Your task to perform on an android device: refresh tabs in the chrome app Image 0: 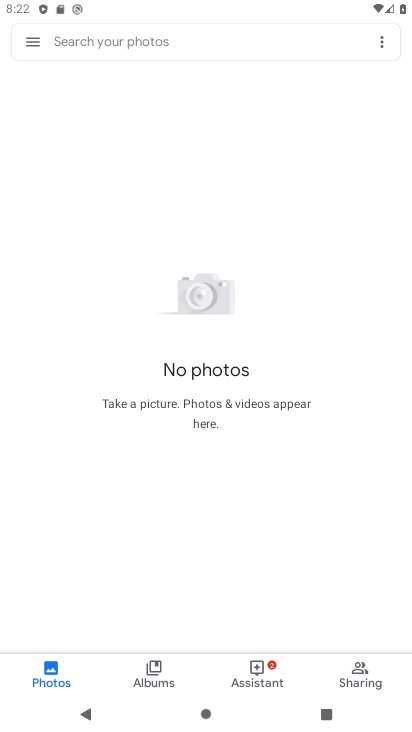
Step 0: press home button
Your task to perform on an android device: refresh tabs in the chrome app Image 1: 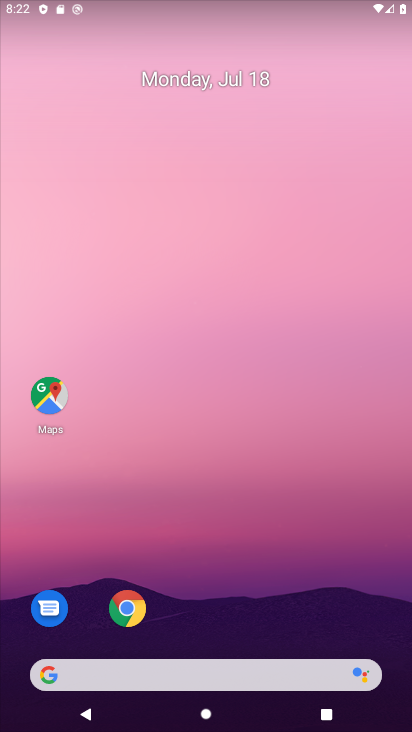
Step 1: click (136, 608)
Your task to perform on an android device: refresh tabs in the chrome app Image 2: 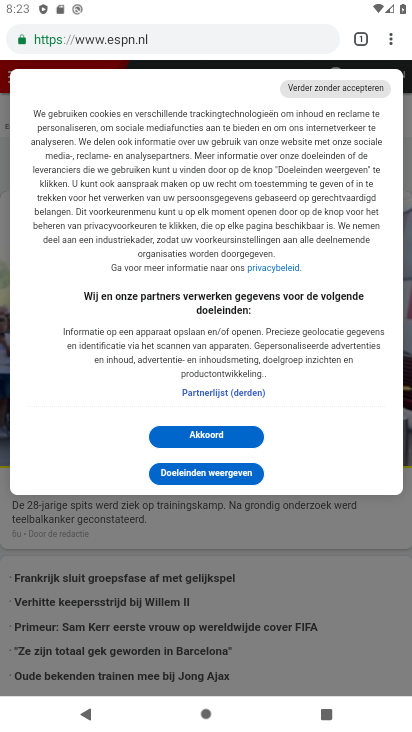
Step 2: click (390, 43)
Your task to perform on an android device: refresh tabs in the chrome app Image 3: 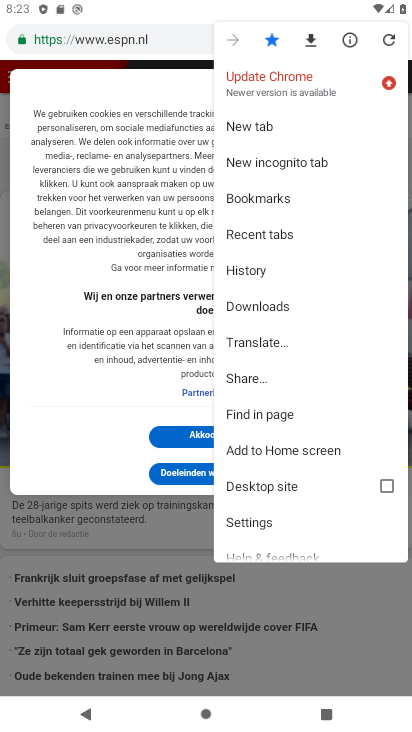
Step 3: click (388, 44)
Your task to perform on an android device: refresh tabs in the chrome app Image 4: 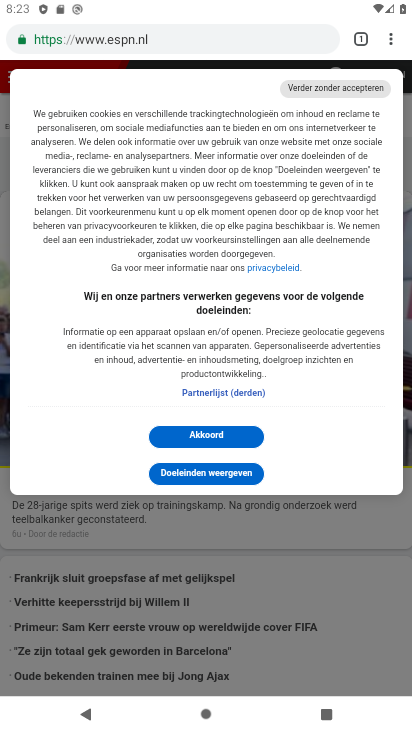
Step 4: task complete